Your task to perform on an android device: Open settings Image 0: 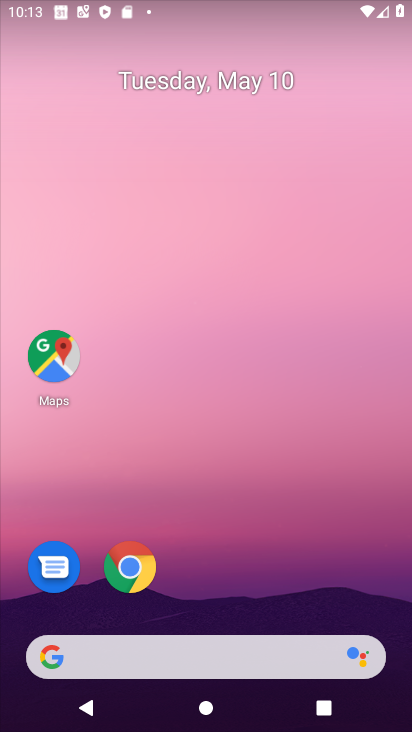
Step 0: drag from (33, 623) to (209, 207)
Your task to perform on an android device: Open settings Image 1: 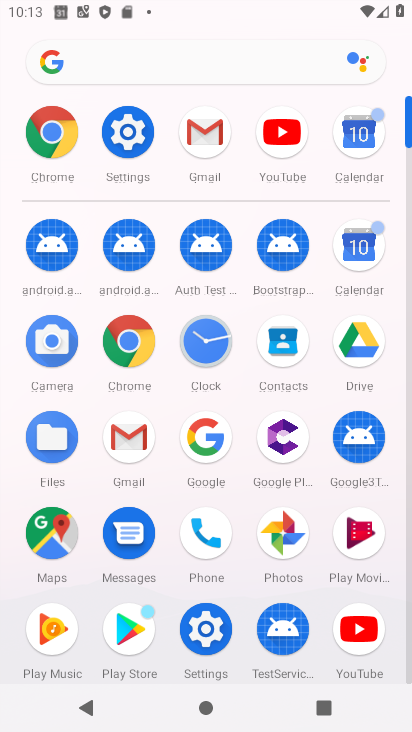
Step 1: click (130, 133)
Your task to perform on an android device: Open settings Image 2: 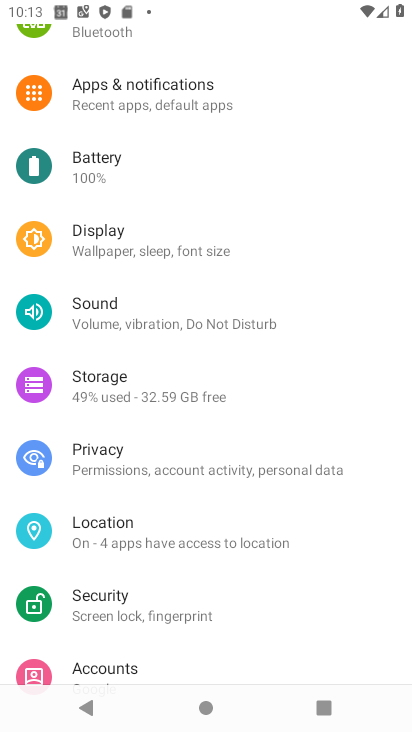
Step 2: task complete